Your task to perform on an android device: delete the emails in spam in the gmail app Image 0: 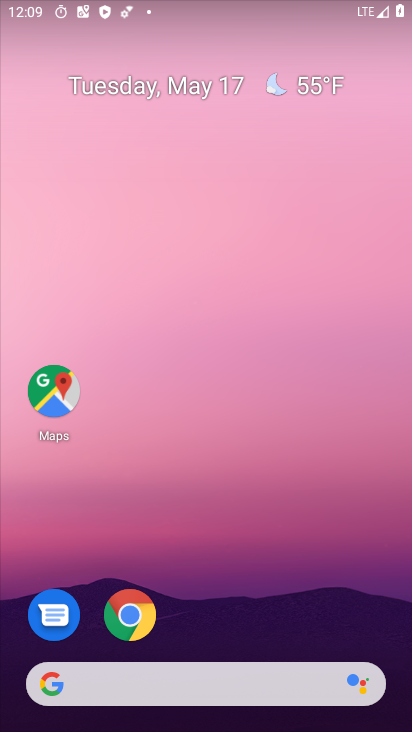
Step 0: press home button
Your task to perform on an android device: delete the emails in spam in the gmail app Image 1: 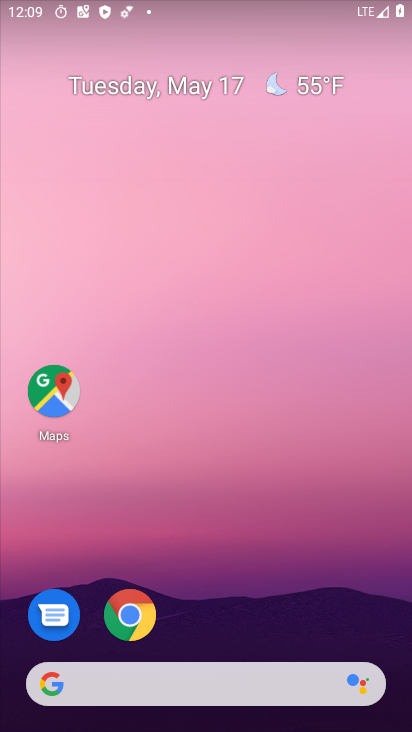
Step 1: press home button
Your task to perform on an android device: delete the emails in spam in the gmail app Image 2: 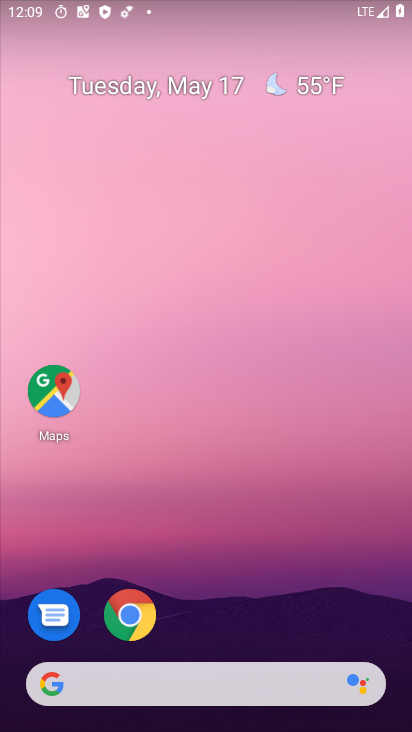
Step 2: drag from (283, 652) to (310, 21)
Your task to perform on an android device: delete the emails in spam in the gmail app Image 3: 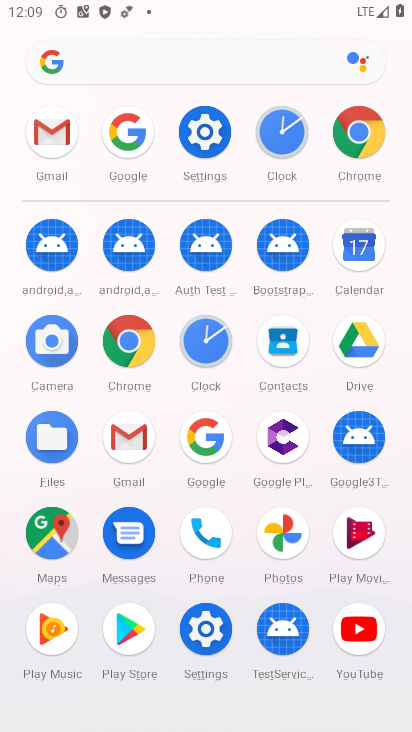
Step 3: click (47, 115)
Your task to perform on an android device: delete the emails in spam in the gmail app Image 4: 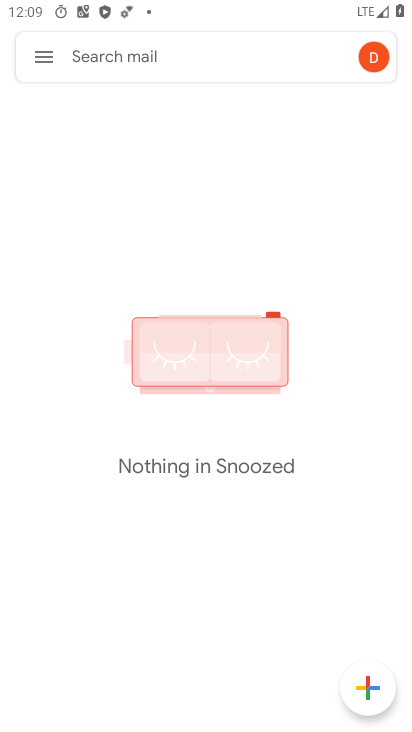
Step 4: task complete